Your task to perform on an android device: Go to internet settings Image 0: 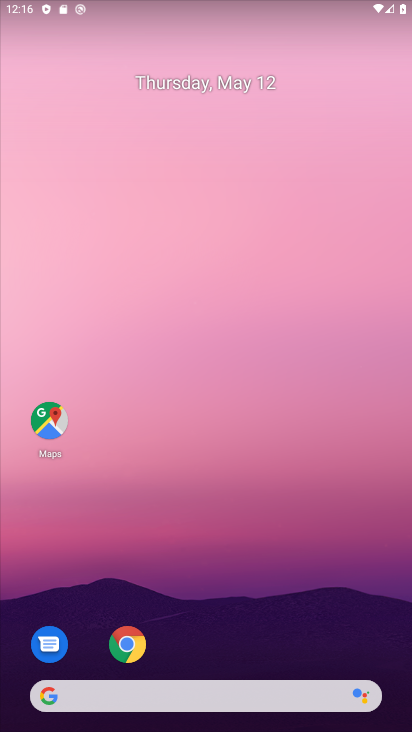
Step 0: drag from (277, 618) to (194, 88)
Your task to perform on an android device: Go to internet settings Image 1: 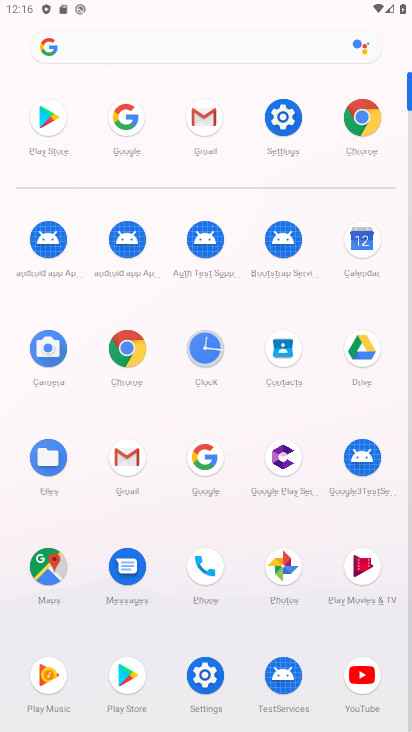
Step 1: click (274, 117)
Your task to perform on an android device: Go to internet settings Image 2: 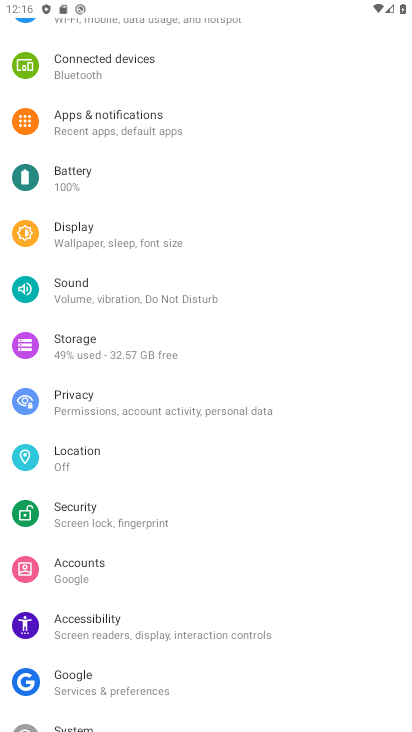
Step 2: drag from (160, 239) to (185, 611)
Your task to perform on an android device: Go to internet settings Image 3: 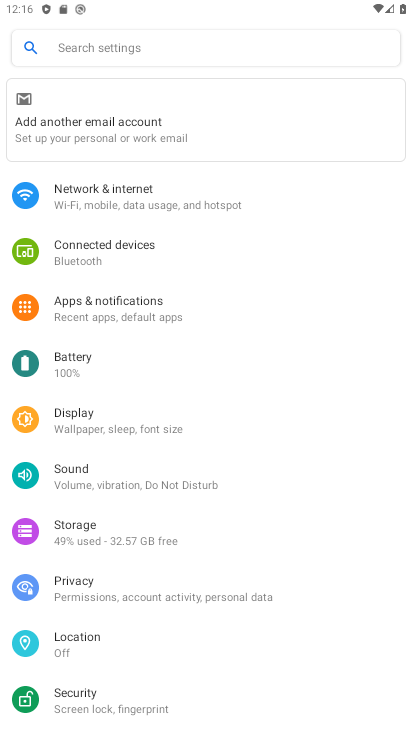
Step 3: click (157, 195)
Your task to perform on an android device: Go to internet settings Image 4: 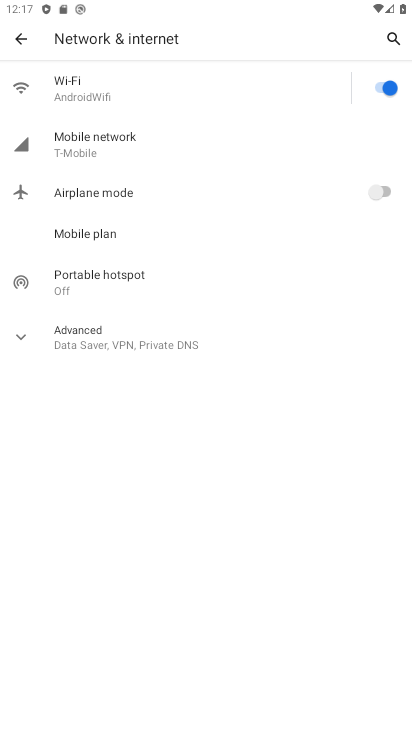
Step 4: task complete